Your task to perform on an android device: Open a new tab in Chrome Image 0: 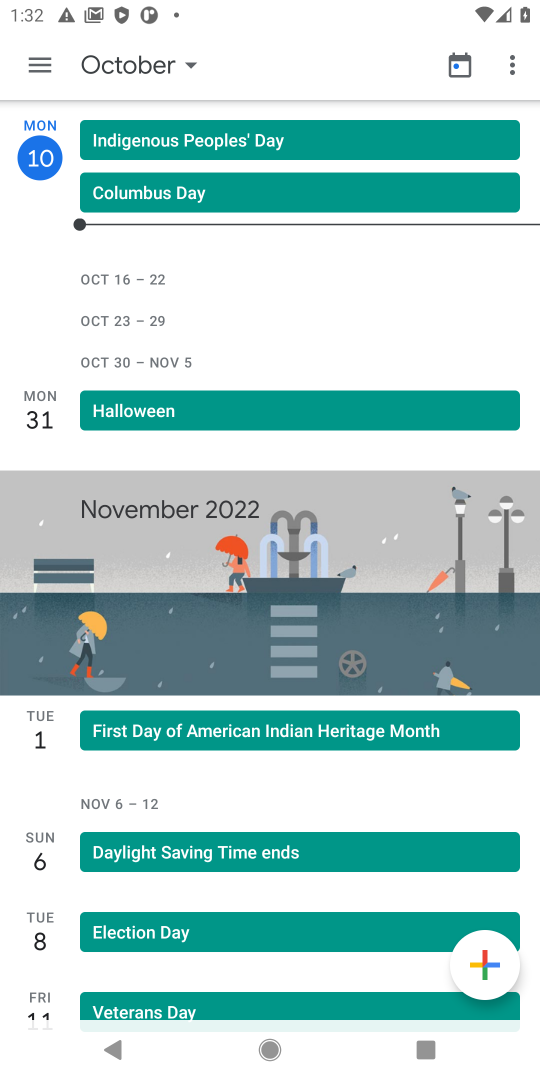
Step 0: press home button
Your task to perform on an android device: Open a new tab in Chrome Image 1: 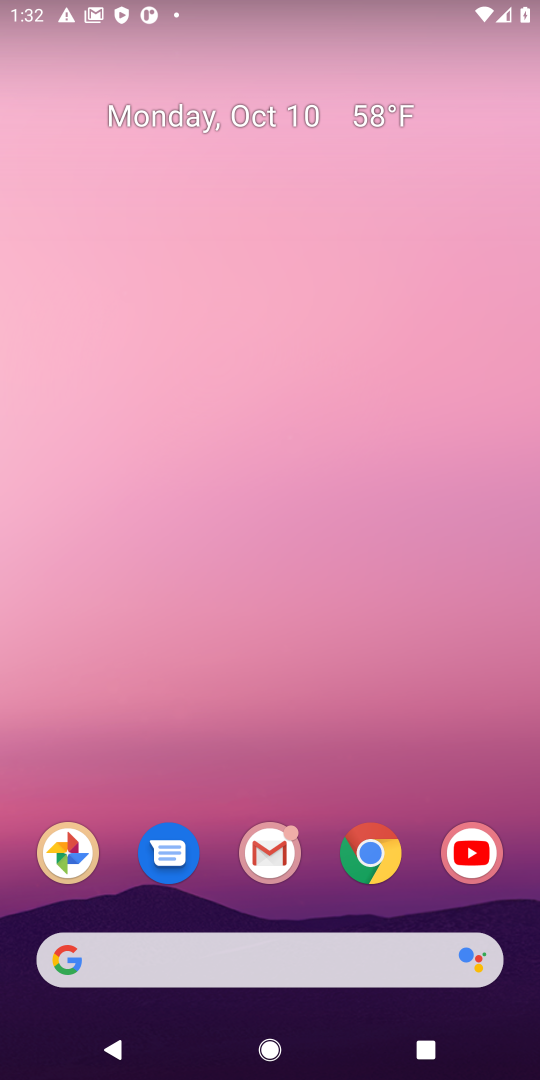
Step 1: click (376, 865)
Your task to perform on an android device: Open a new tab in Chrome Image 2: 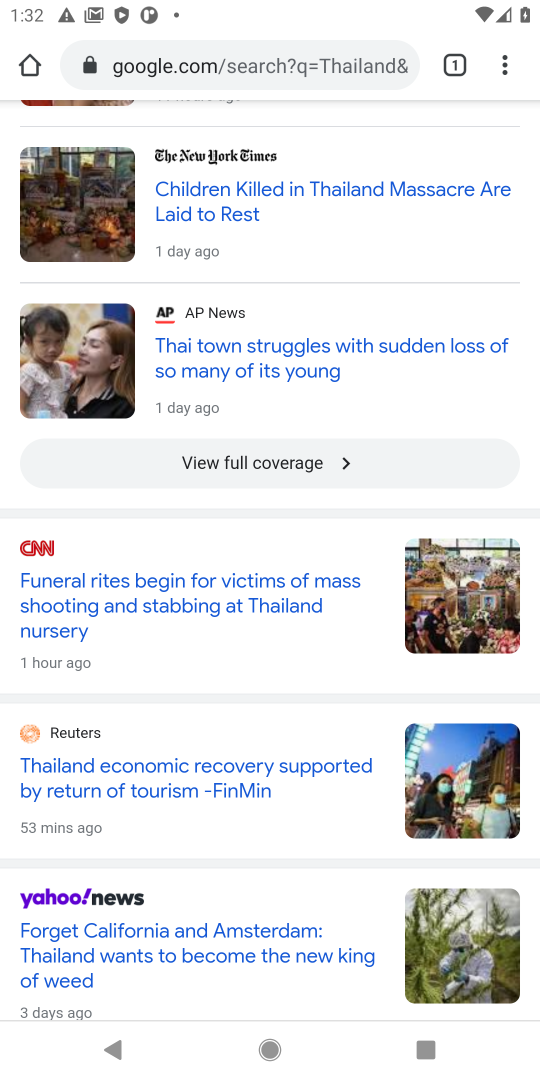
Step 2: click (28, 56)
Your task to perform on an android device: Open a new tab in Chrome Image 3: 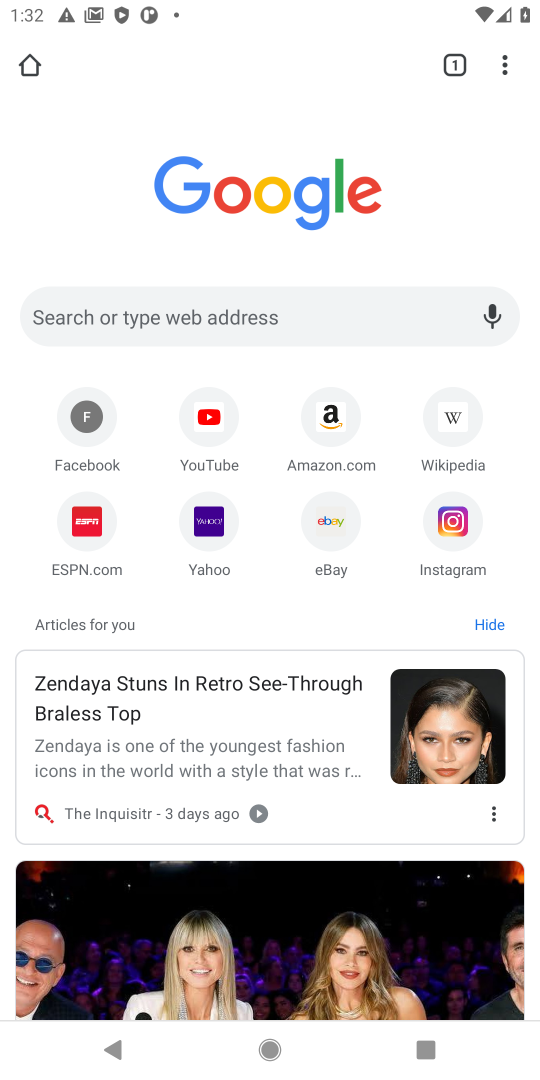
Step 3: click (509, 63)
Your task to perform on an android device: Open a new tab in Chrome Image 4: 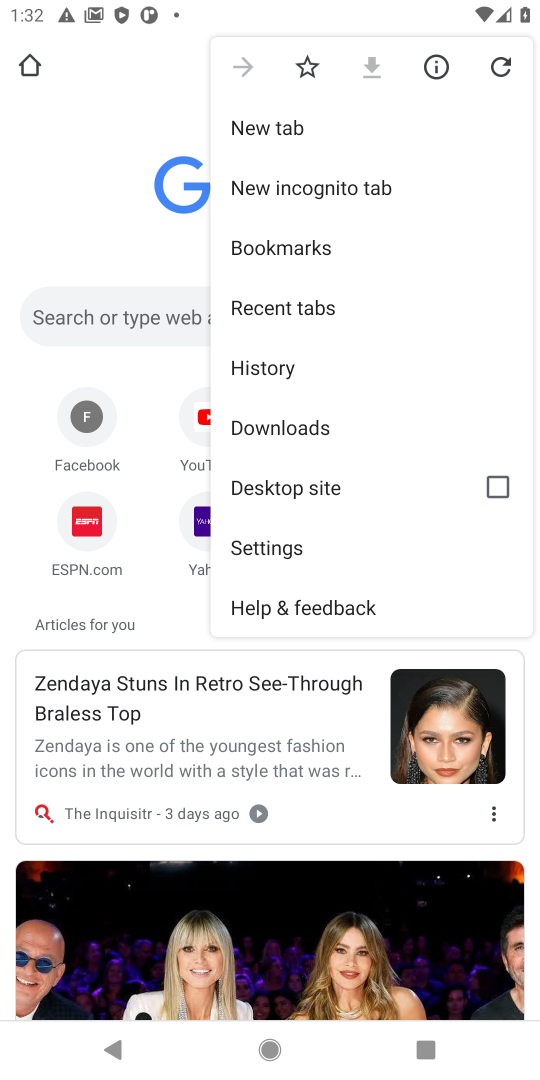
Step 4: click (291, 132)
Your task to perform on an android device: Open a new tab in Chrome Image 5: 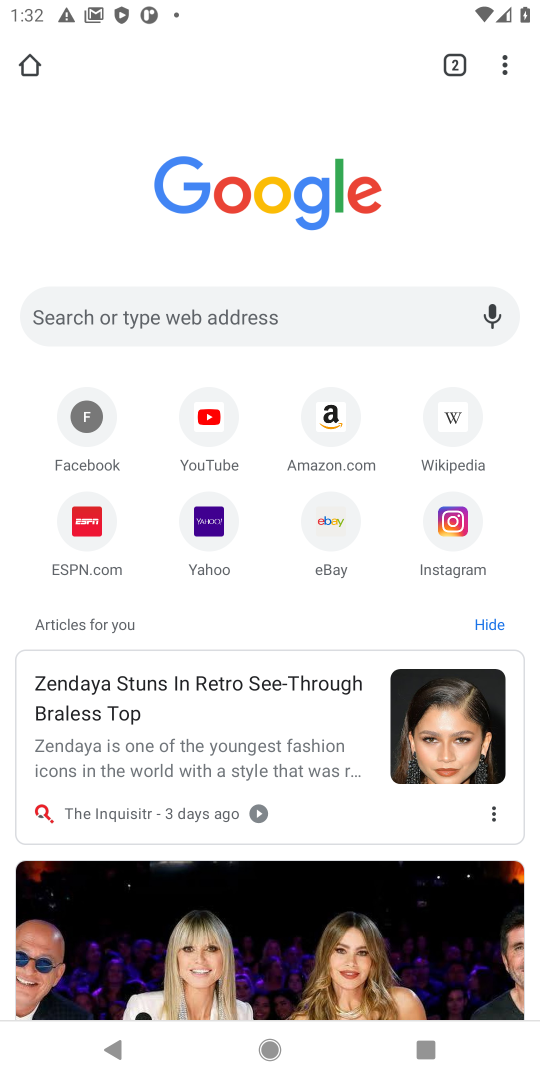
Step 5: task complete